Your task to perform on an android device: turn notification dots on Image 0: 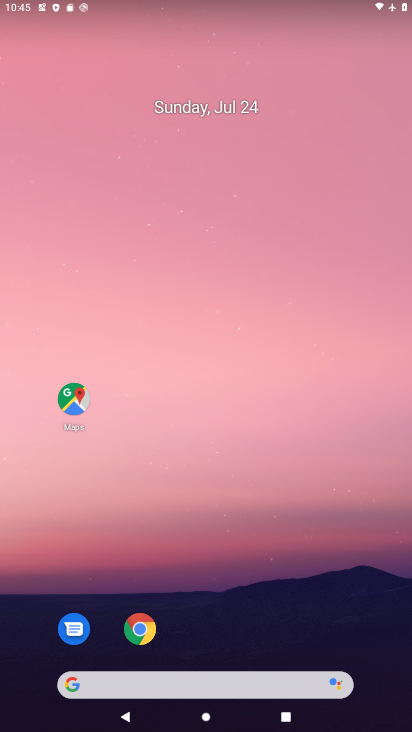
Step 0: task complete